Your task to perform on an android device: open device folders in google photos Image 0: 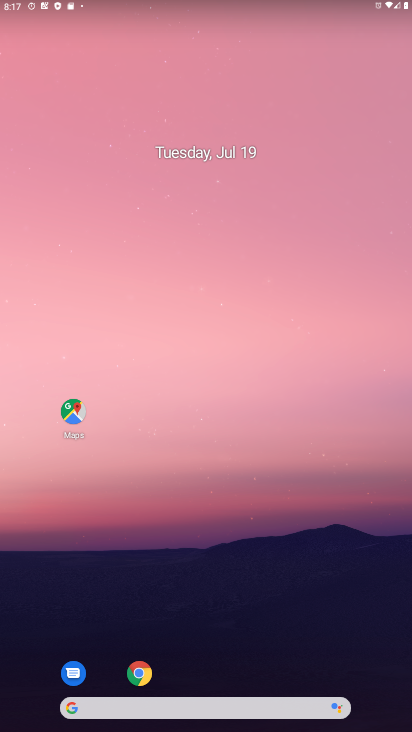
Step 0: drag from (279, 170) to (271, 50)
Your task to perform on an android device: open device folders in google photos Image 1: 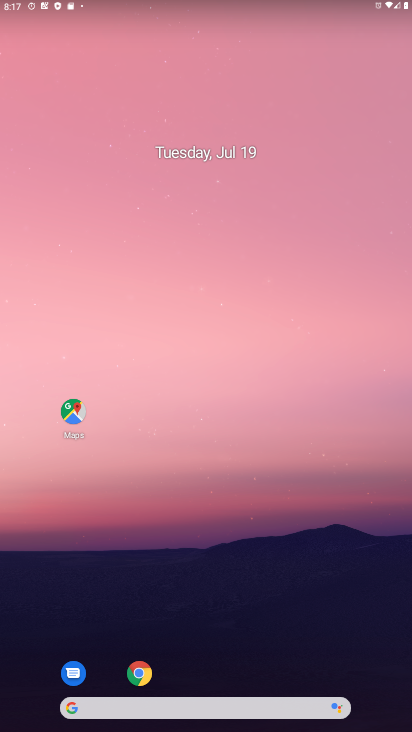
Step 1: drag from (294, 672) to (330, 29)
Your task to perform on an android device: open device folders in google photos Image 2: 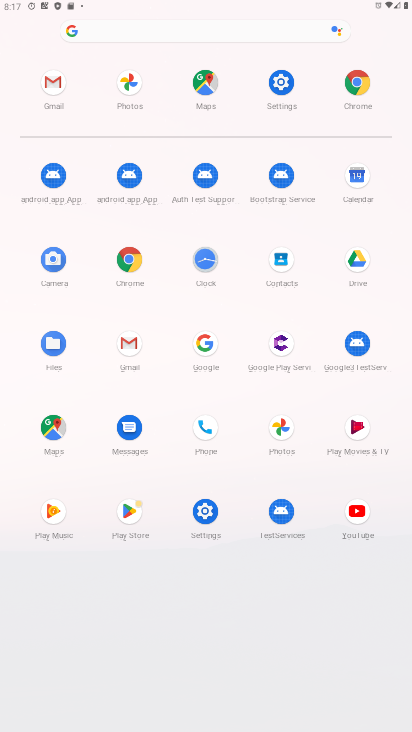
Step 2: click (272, 424)
Your task to perform on an android device: open device folders in google photos Image 3: 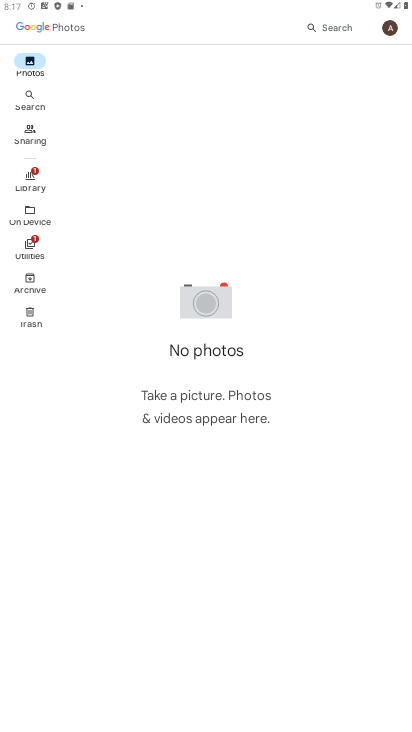
Step 3: click (386, 32)
Your task to perform on an android device: open device folders in google photos Image 4: 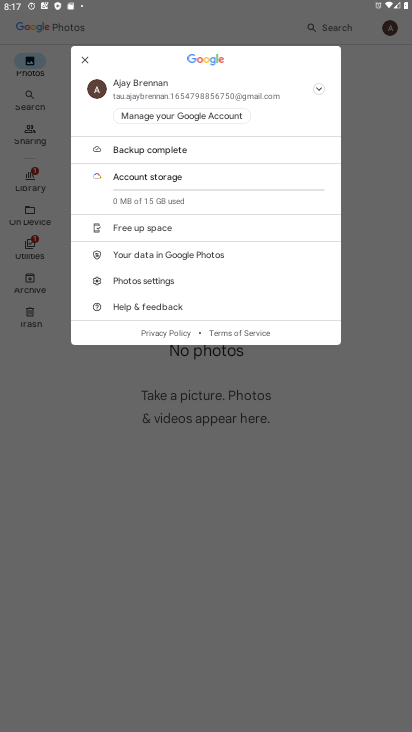
Step 4: click (246, 549)
Your task to perform on an android device: open device folders in google photos Image 5: 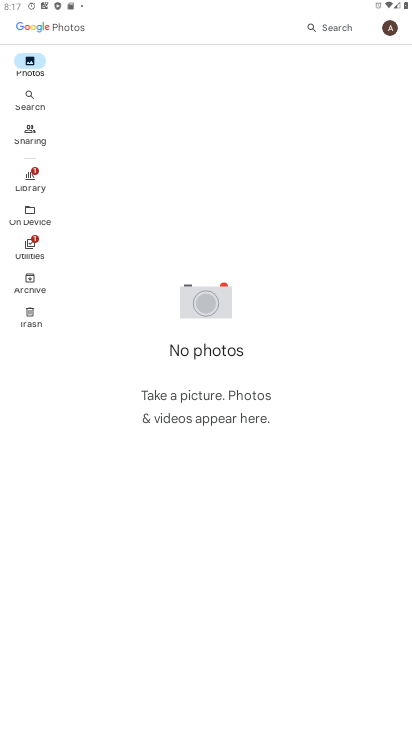
Step 5: click (396, 17)
Your task to perform on an android device: open device folders in google photos Image 6: 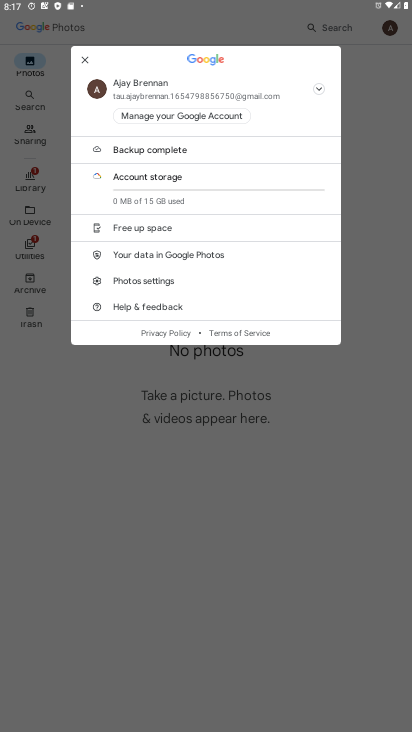
Step 6: click (150, 280)
Your task to perform on an android device: open device folders in google photos Image 7: 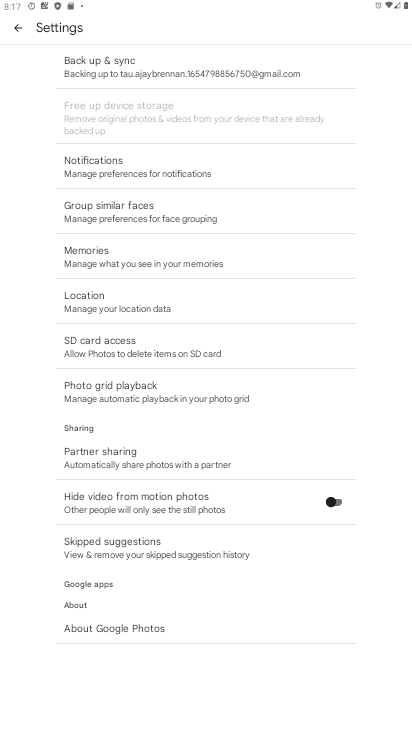
Step 7: task complete